Your task to perform on an android device: Go to CNN.com Image 0: 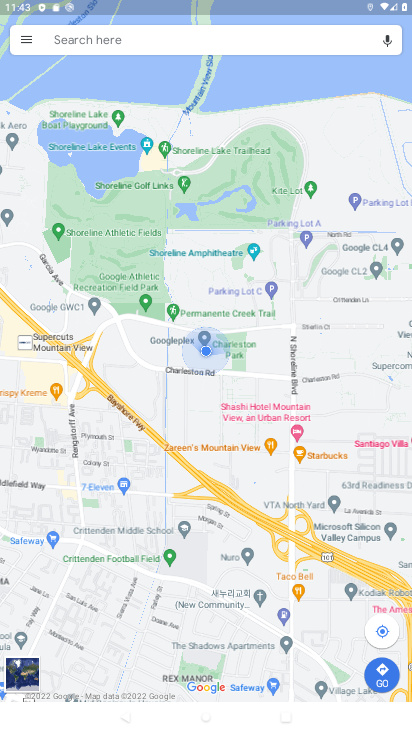
Step 0: press home button
Your task to perform on an android device: Go to CNN.com Image 1: 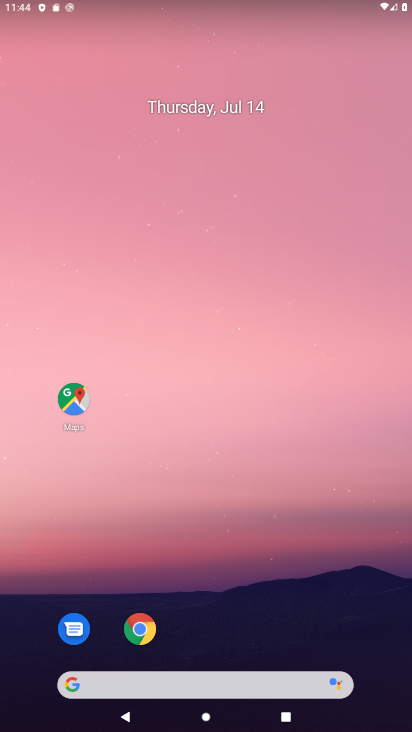
Step 1: drag from (282, 624) to (223, 24)
Your task to perform on an android device: Go to CNN.com Image 2: 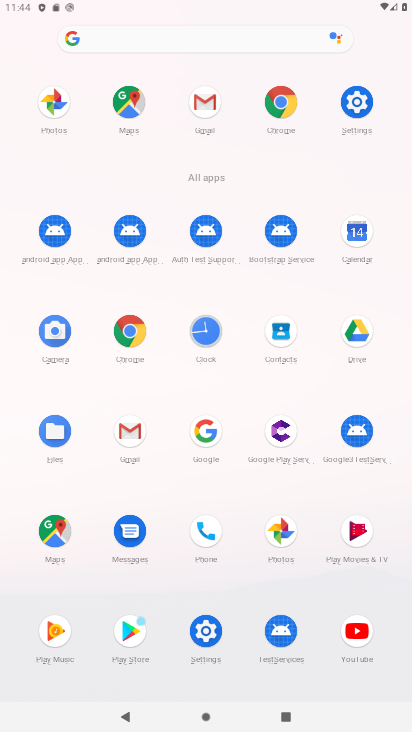
Step 2: click (125, 332)
Your task to perform on an android device: Go to CNN.com Image 3: 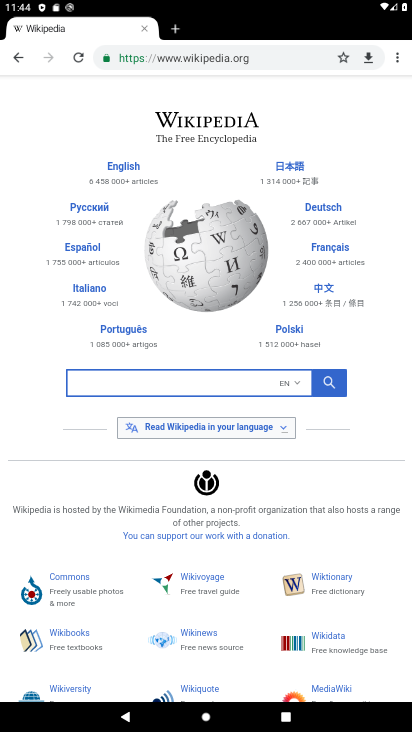
Step 3: click (271, 59)
Your task to perform on an android device: Go to CNN.com Image 4: 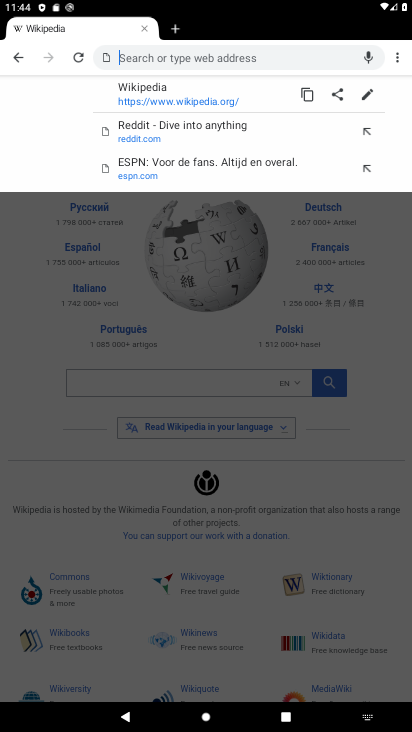
Step 4: type "cnn.com"
Your task to perform on an android device: Go to CNN.com Image 5: 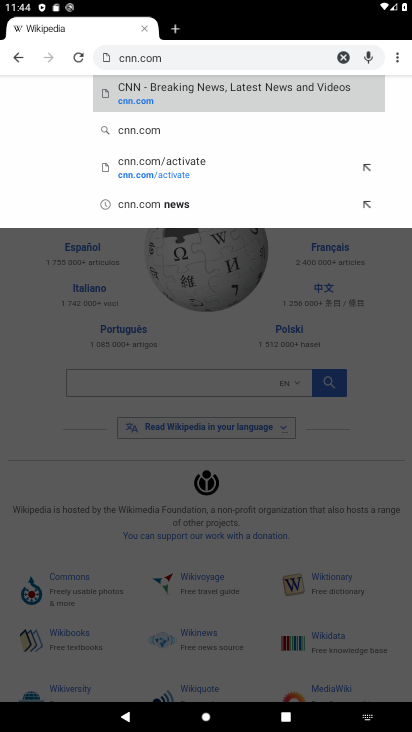
Step 5: click (122, 103)
Your task to perform on an android device: Go to CNN.com Image 6: 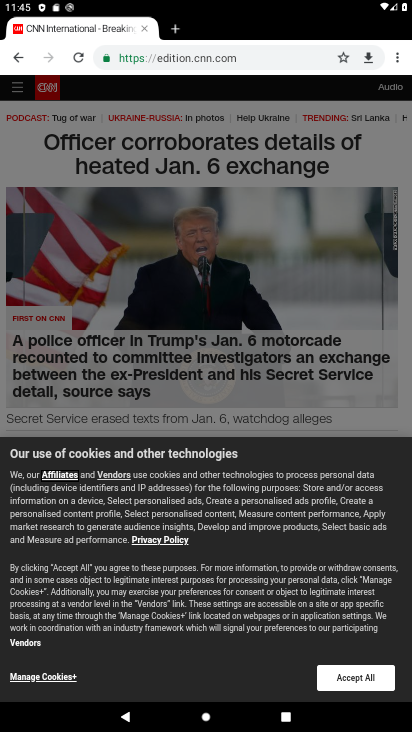
Step 6: task complete